Your task to perform on an android device: find which apps use the phone's location Image 0: 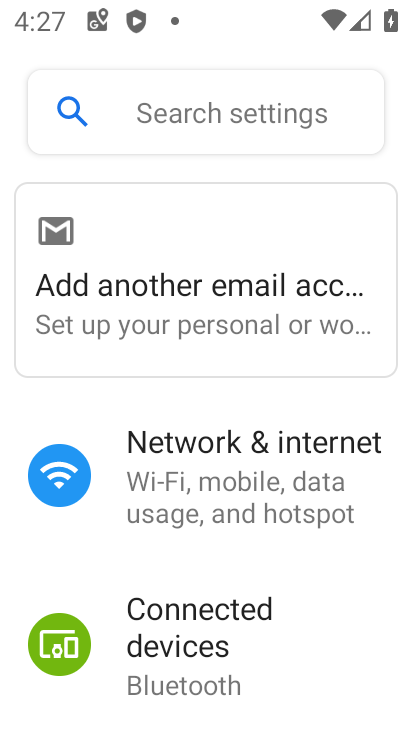
Step 0: press home button
Your task to perform on an android device: find which apps use the phone's location Image 1: 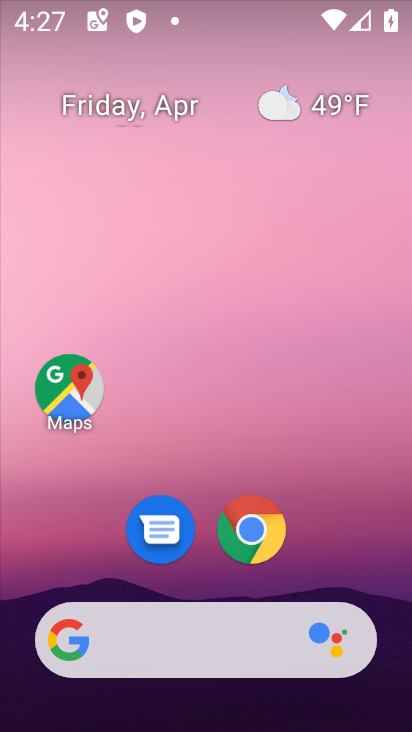
Step 1: drag from (231, 634) to (233, 182)
Your task to perform on an android device: find which apps use the phone's location Image 2: 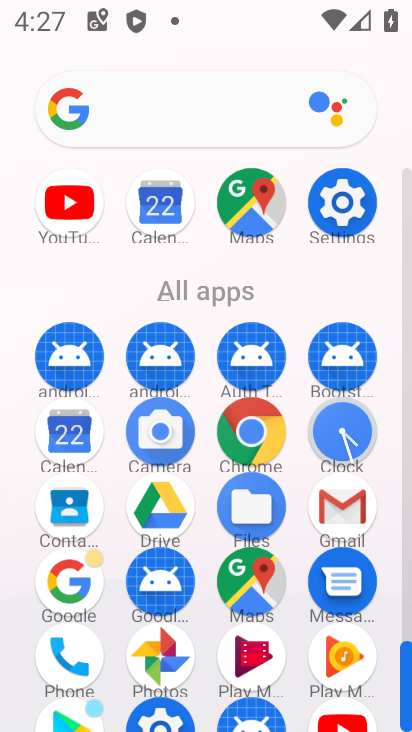
Step 2: click (344, 194)
Your task to perform on an android device: find which apps use the phone's location Image 3: 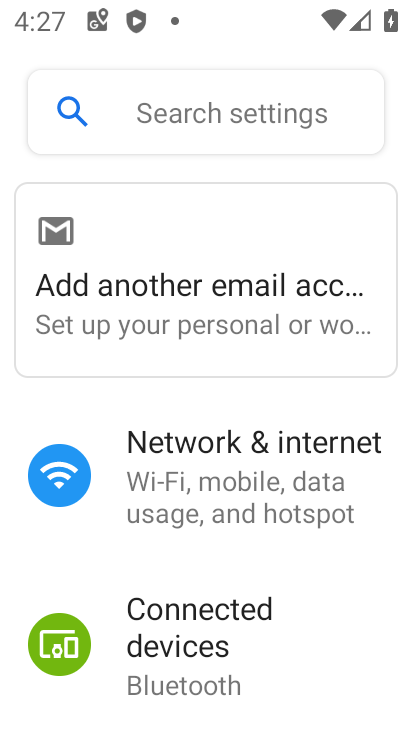
Step 3: drag from (221, 694) to (221, 209)
Your task to perform on an android device: find which apps use the phone's location Image 4: 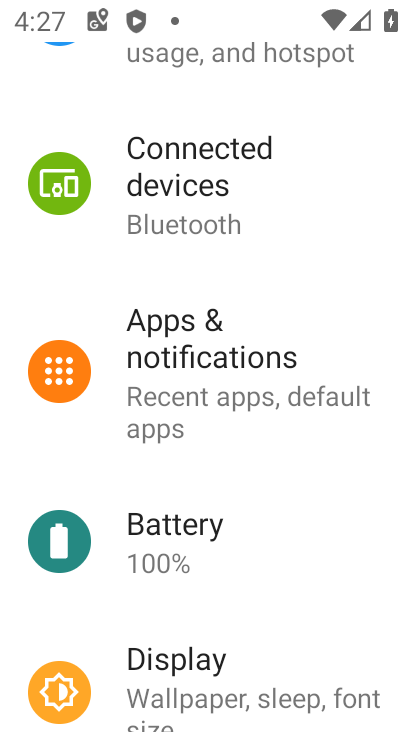
Step 4: drag from (215, 694) to (222, 337)
Your task to perform on an android device: find which apps use the phone's location Image 5: 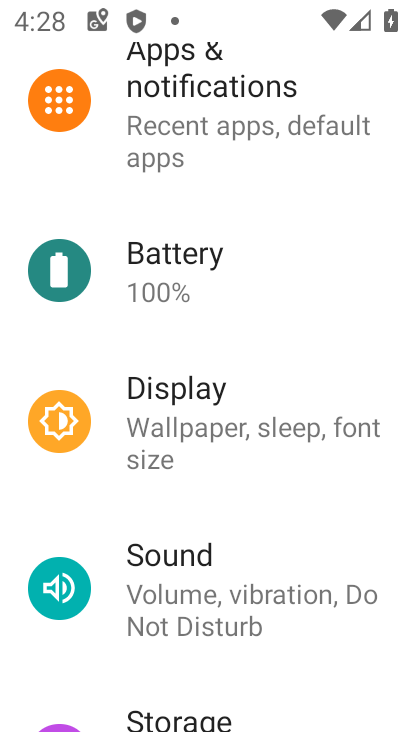
Step 5: drag from (192, 662) to (191, 203)
Your task to perform on an android device: find which apps use the phone's location Image 6: 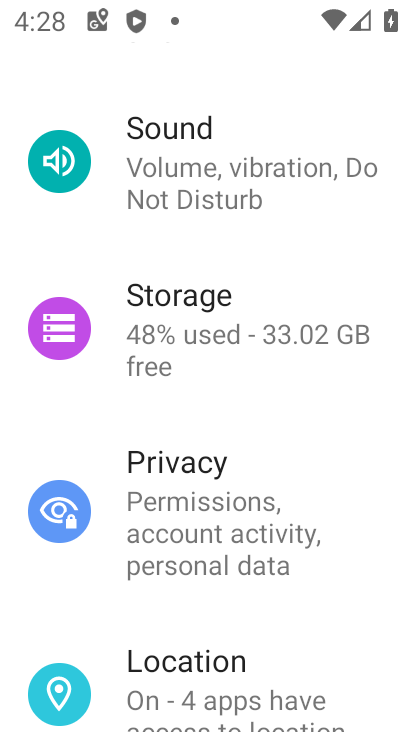
Step 6: click (182, 687)
Your task to perform on an android device: find which apps use the phone's location Image 7: 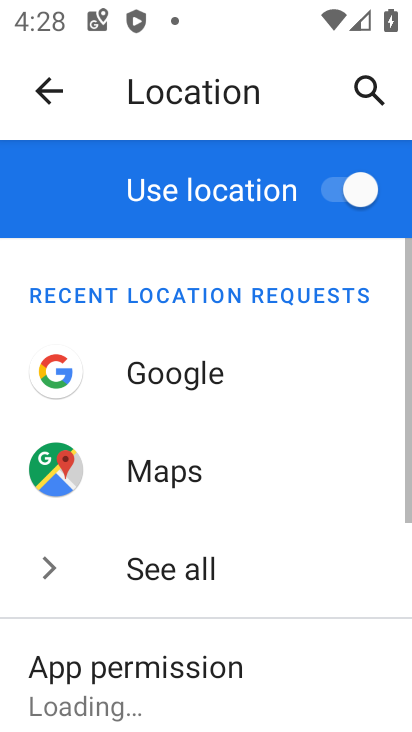
Step 7: drag from (226, 715) to (229, 291)
Your task to perform on an android device: find which apps use the phone's location Image 8: 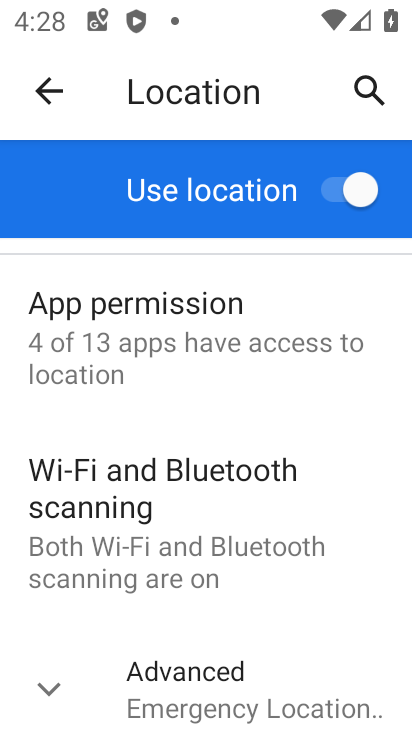
Step 8: click (170, 322)
Your task to perform on an android device: find which apps use the phone's location Image 9: 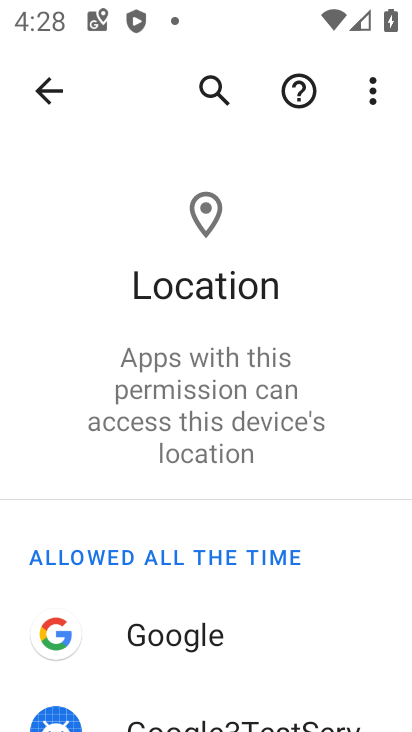
Step 9: task complete